Your task to perform on an android device: Search for seafood restaurants on Google Maps Image 0: 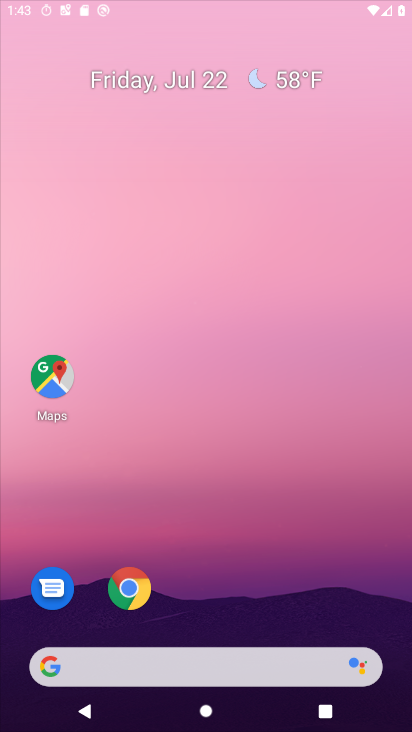
Step 0: press home button
Your task to perform on an android device: Search for seafood restaurants on Google Maps Image 1: 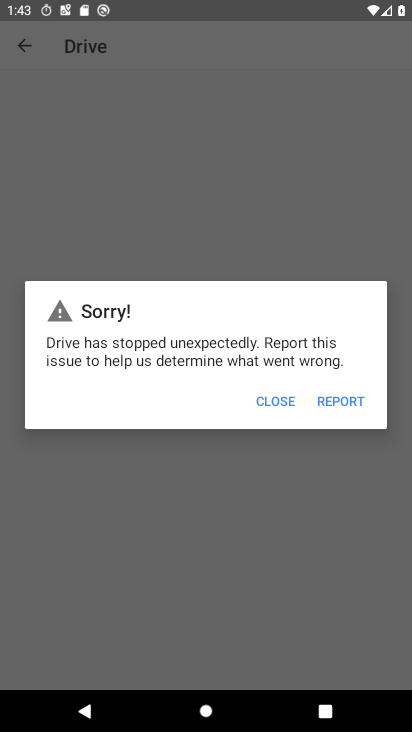
Step 1: drag from (130, 4) to (119, 44)
Your task to perform on an android device: Search for seafood restaurants on Google Maps Image 2: 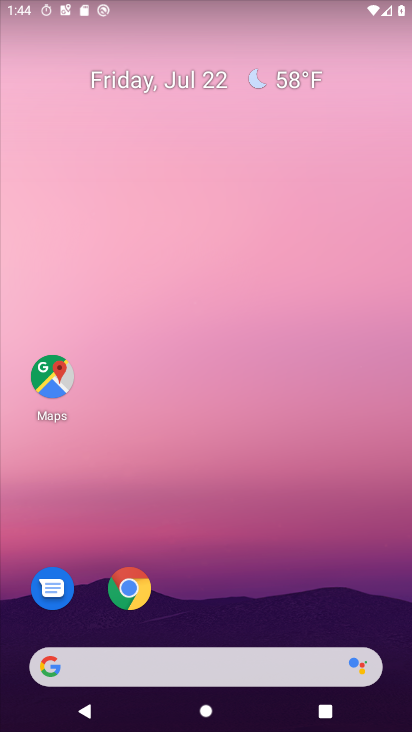
Step 2: click (51, 377)
Your task to perform on an android device: Search for seafood restaurants on Google Maps Image 3: 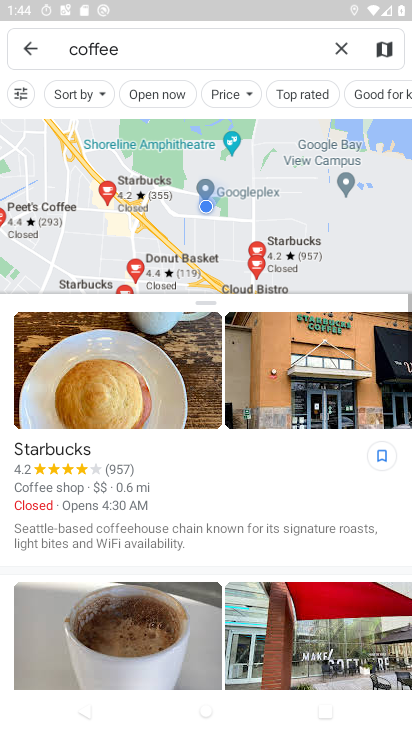
Step 3: click (341, 43)
Your task to perform on an android device: Search for seafood restaurants on Google Maps Image 4: 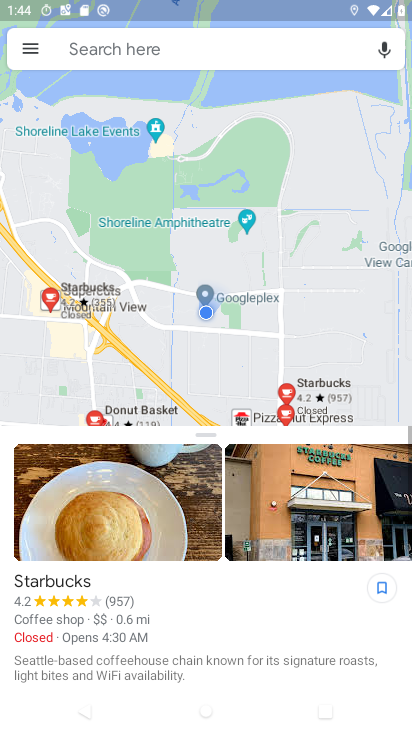
Step 4: click (192, 42)
Your task to perform on an android device: Search for seafood restaurants on Google Maps Image 5: 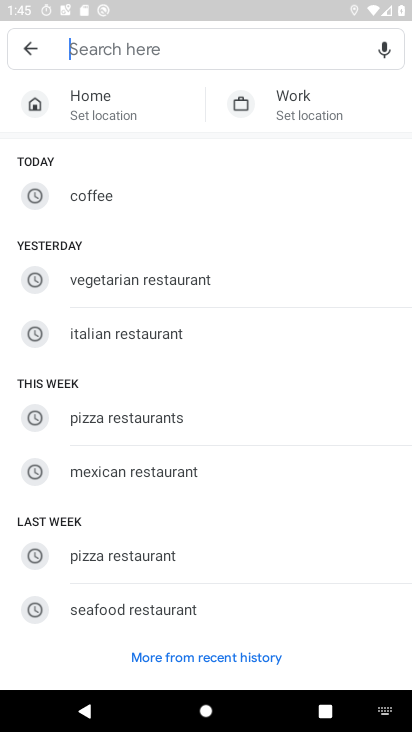
Step 5: click (192, 42)
Your task to perform on an android device: Search for seafood restaurants on Google Maps Image 6: 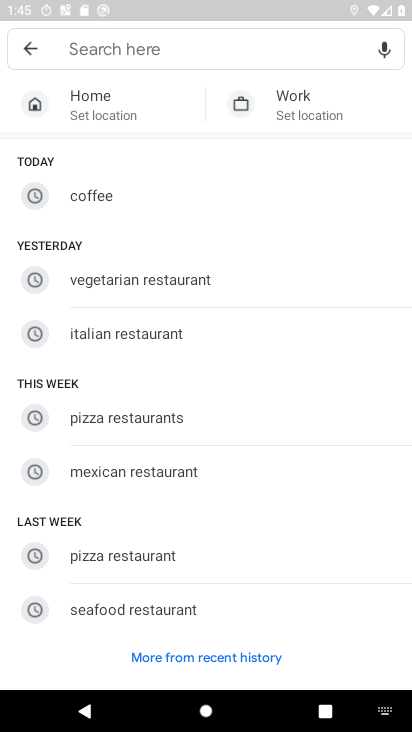
Step 6: type " seafood restaurants "
Your task to perform on an android device: Search for seafood restaurants on Google Maps Image 7: 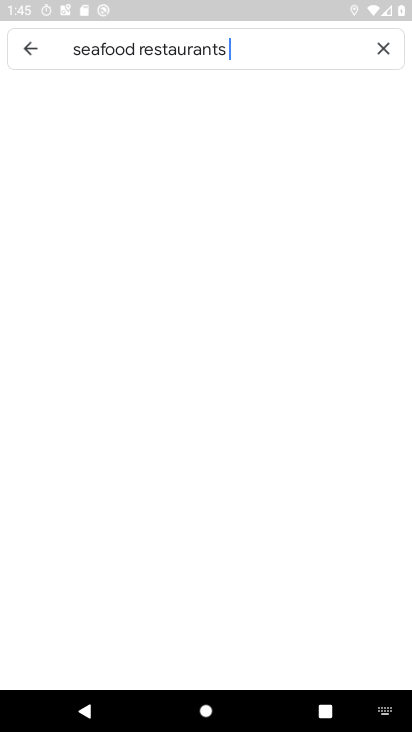
Step 7: type ""
Your task to perform on an android device: Search for seafood restaurants on Google Maps Image 8: 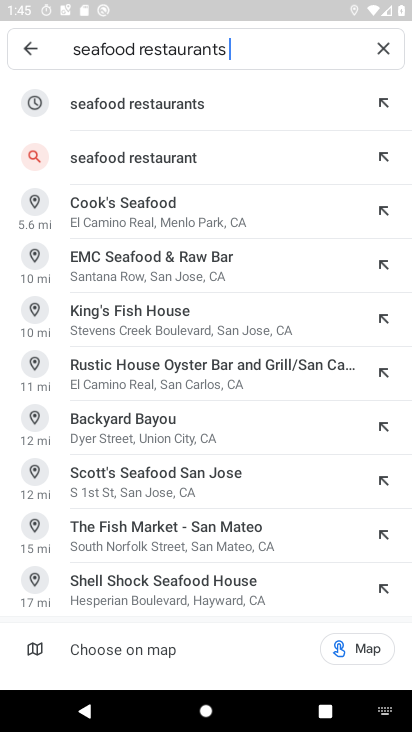
Step 8: click (74, 100)
Your task to perform on an android device: Search for seafood restaurants on Google Maps Image 9: 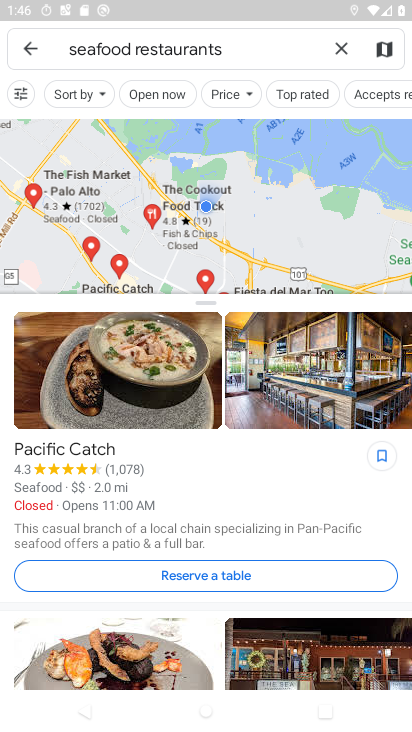
Step 9: click (30, 48)
Your task to perform on an android device: Search for seafood restaurants on Google Maps Image 10: 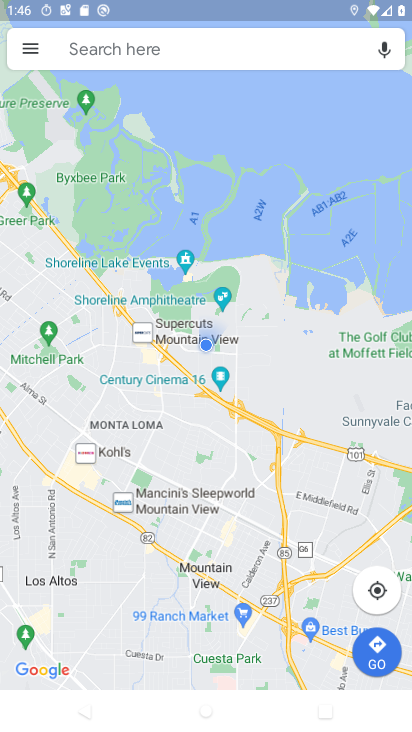
Step 10: click (104, 45)
Your task to perform on an android device: Search for seafood restaurants on Google Maps Image 11: 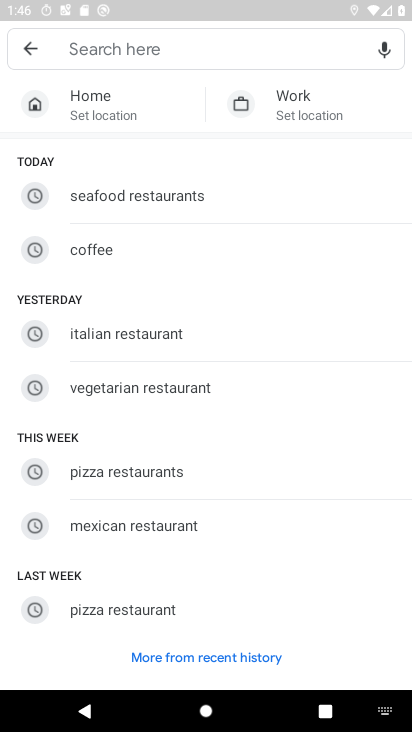
Step 11: type " seafood restaurants "
Your task to perform on an android device: Search for seafood restaurants on Google Maps Image 12: 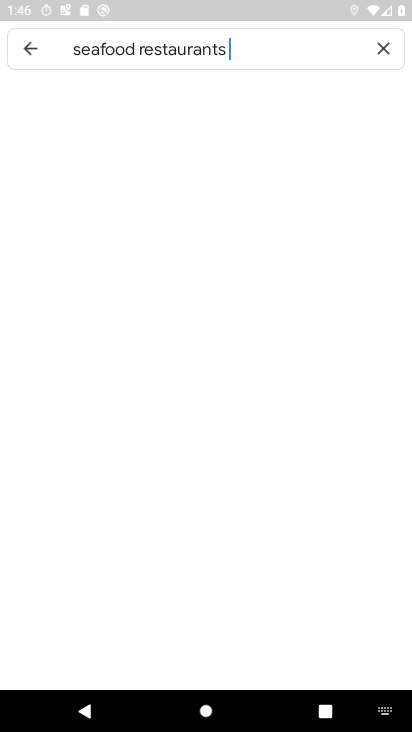
Step 12: type ""
Your task to perform on an android device: Search for seafood restaurants on Google Maps Image 13: 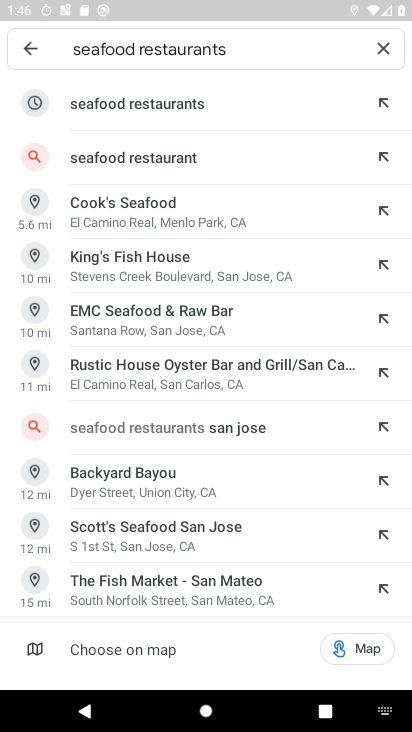
Step 13: click (119, 97)
Your task to perform on an android device: Search for seafood restaurants on Google Maps Image 14: 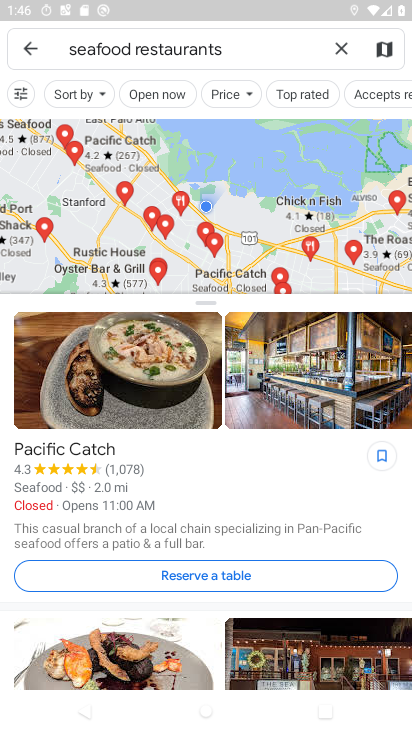
Step 14: task complete